Your task to perform on an android device: Go to wifi settings Image 0: 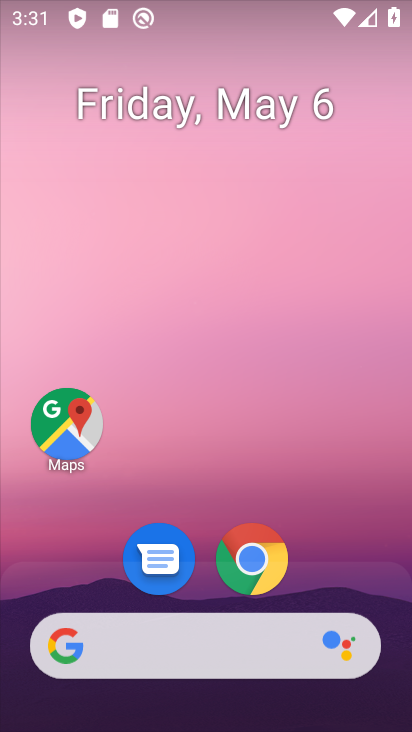
Step 0: drag from (205, 597) to (264, 197)
Your task to perform on an android device: Go to wifi settings Image 1: 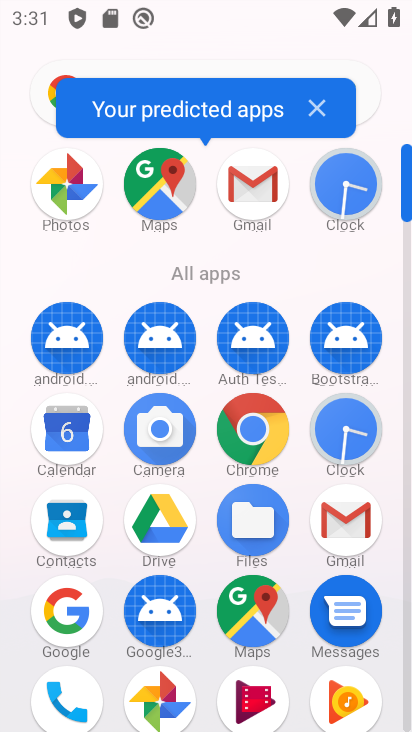
Step 1: drag from (132, 622) to (146, 349)
Your task to perform on an android device: Go to wifi settings Image 2: 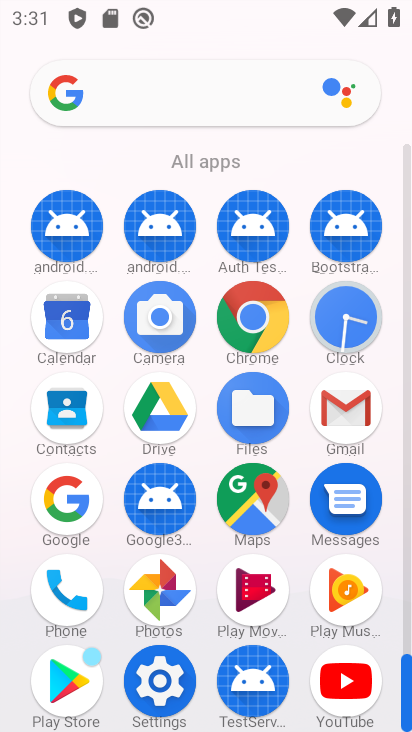
Step 2: click (163, 678)
Your task to perform on an android device: Go to wifi settings Image 3: 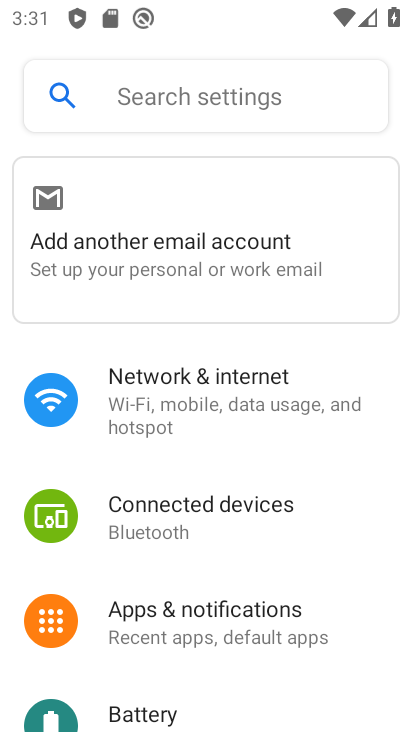
Step 3: click (202, 398)
Your task to perform on an android device: Go to wifi settings Image 4: 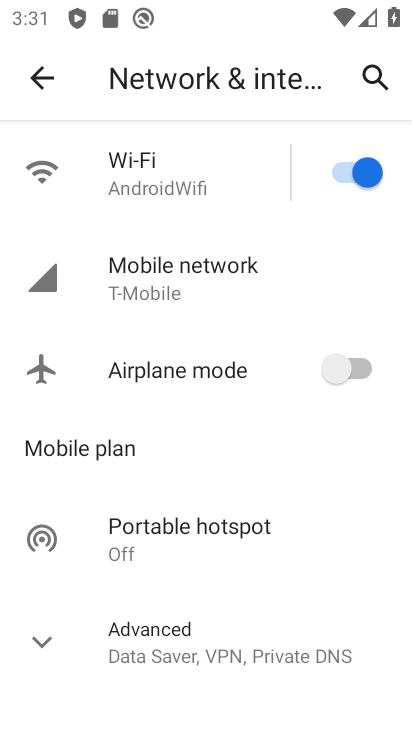
Step 4: click (195, 178)
Your task to perform on an android device: Go to wifi settings Image 5: 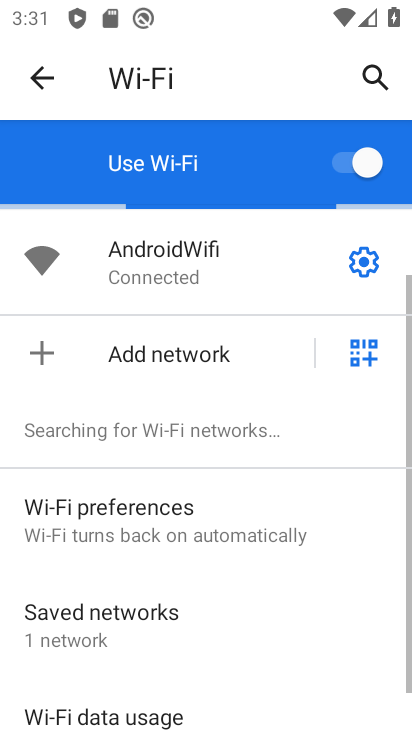
Step 5: click (349, 259)
Your task to perform on an android device: Go to wifi settings Image 6: 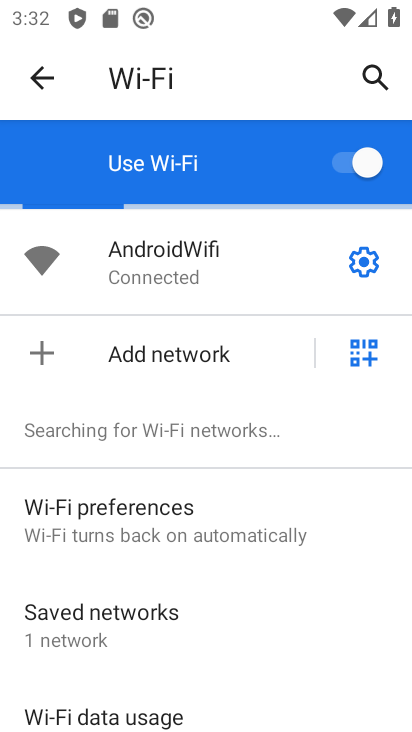
Step 6: click (363, 265)
Your task to perform on an android device: Go to wifi settings Image 7: 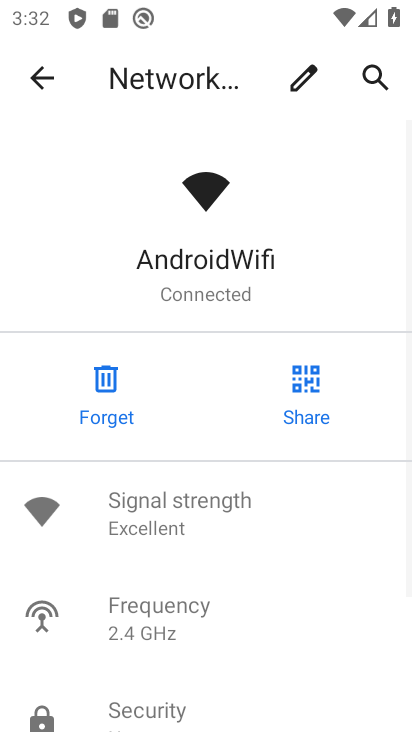
Step 7: drag from (157, 650) to (215, 247)
Your task to perform on an android device: Go to wifi settings Image 8: 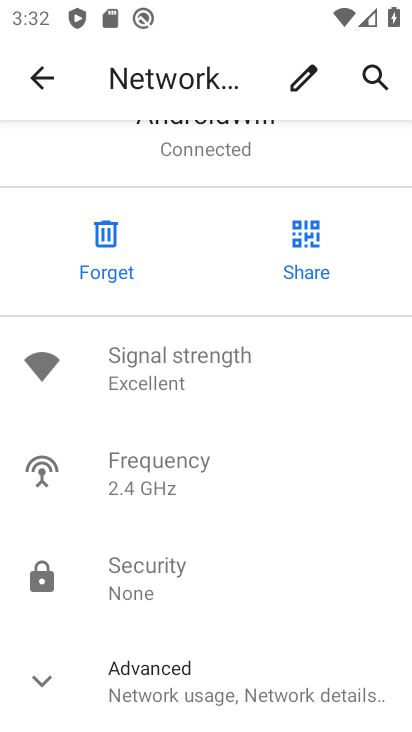
Step 8: drag from (187, 672) to (203, 305)
Your task to perform on an android device: Go to wifi settings Image 9: 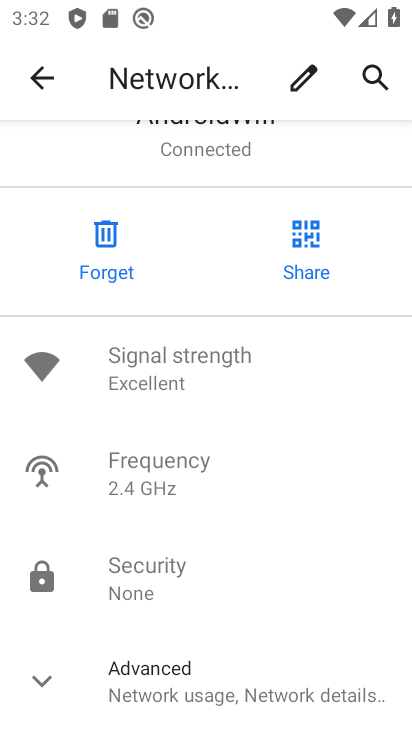
Step 9: click (185, 684)
Your task to perform on an android device: Go to wifi settings Image 10: 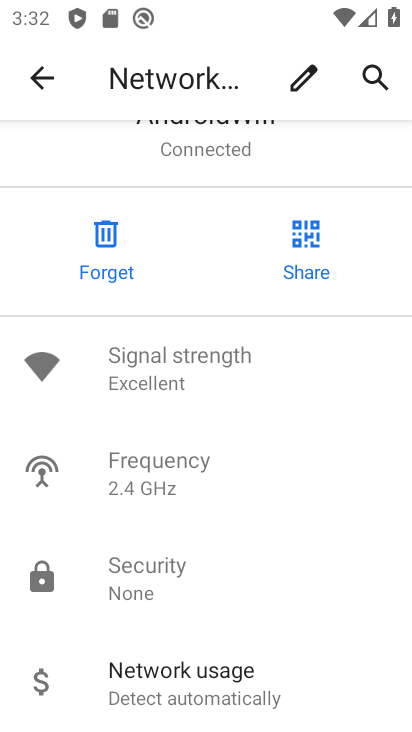
Step 10: task complete